Your task to perform on an android device: Go to accessibility settings Image 0: 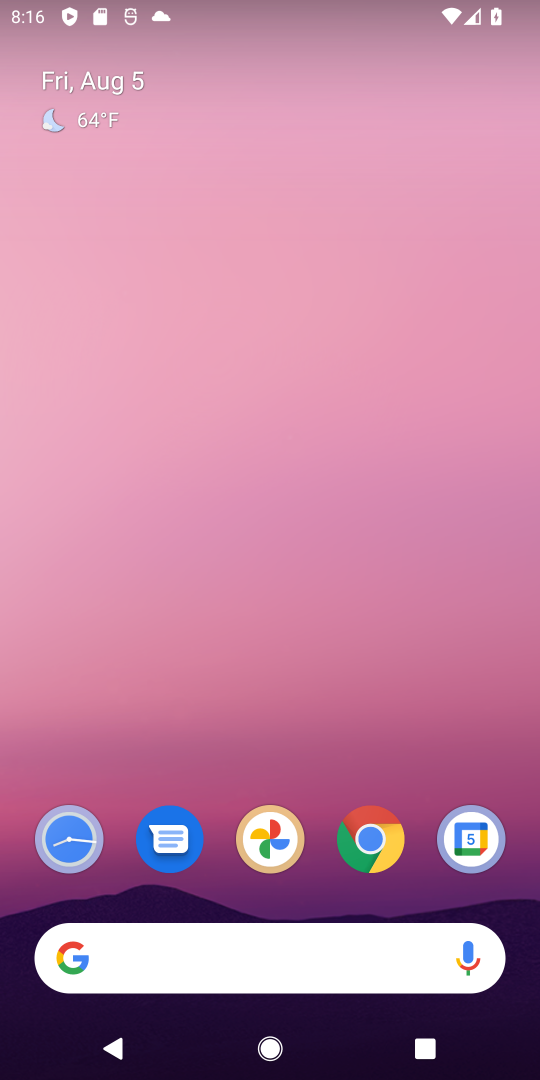
Step 0: drag from (310, 847) to (322, 132)
Your task to perform on an android device: Go to accessibility settings Image 1: 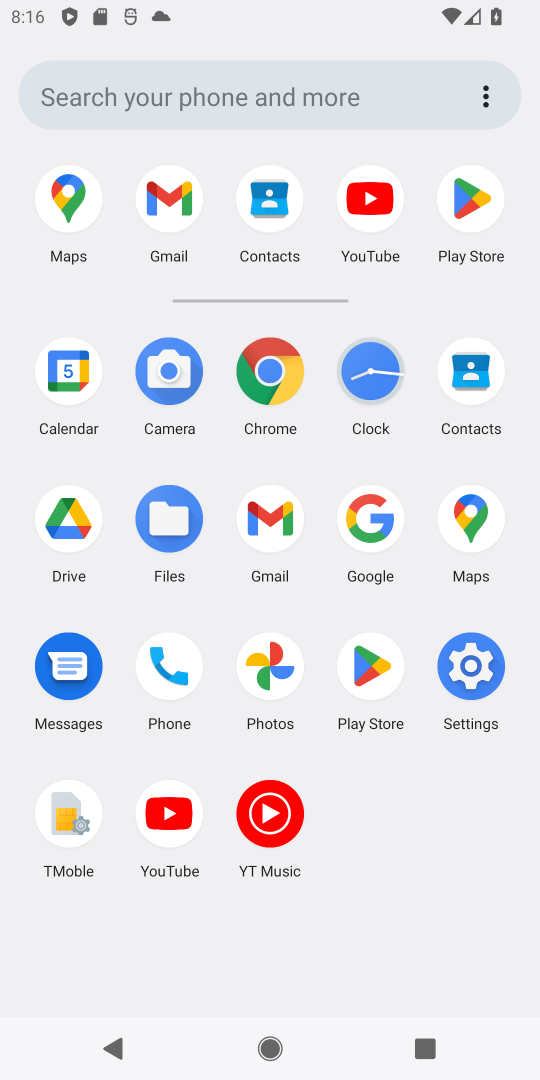
Step 1: click (466, 662)
Your task to perform on an android device: Go to accessibility settings Image 2: 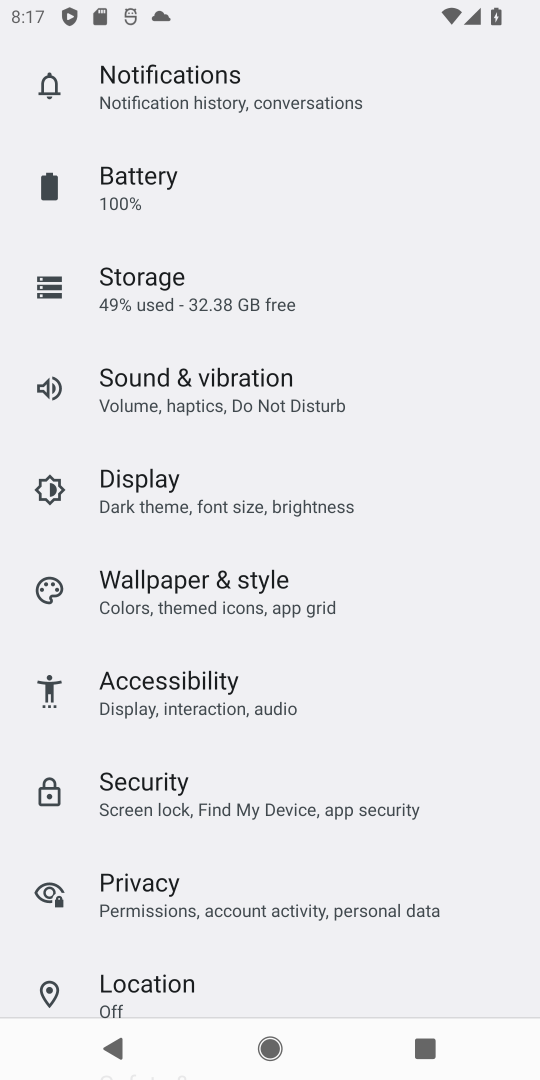
Step 2: click (176, 715)
Your task to perform on an android device: Go to accessibility settings Image 3: 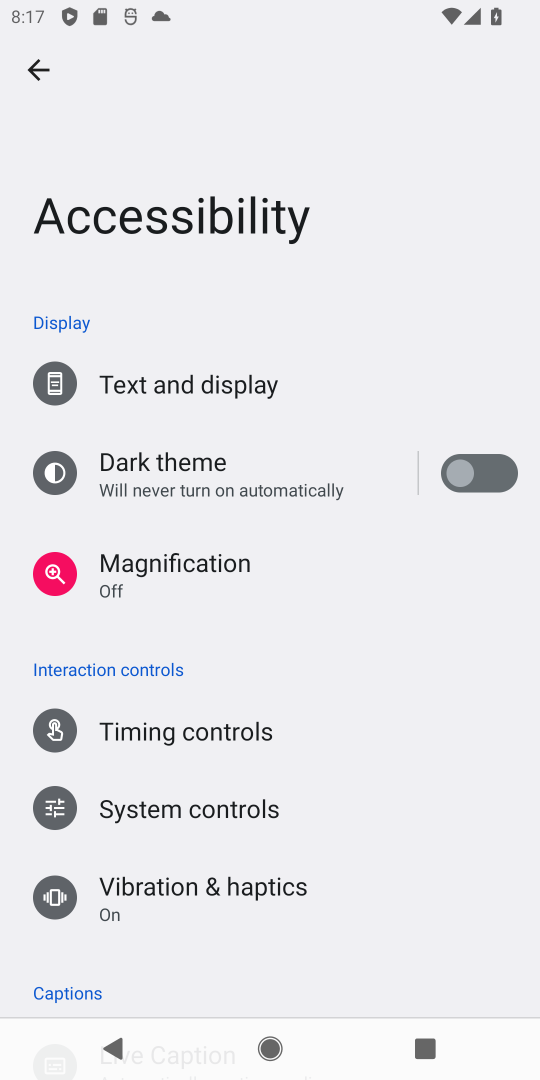
Step 3: task complete